Your task to perform on an android device: uninstall "Airtel Thanks" Image 0: 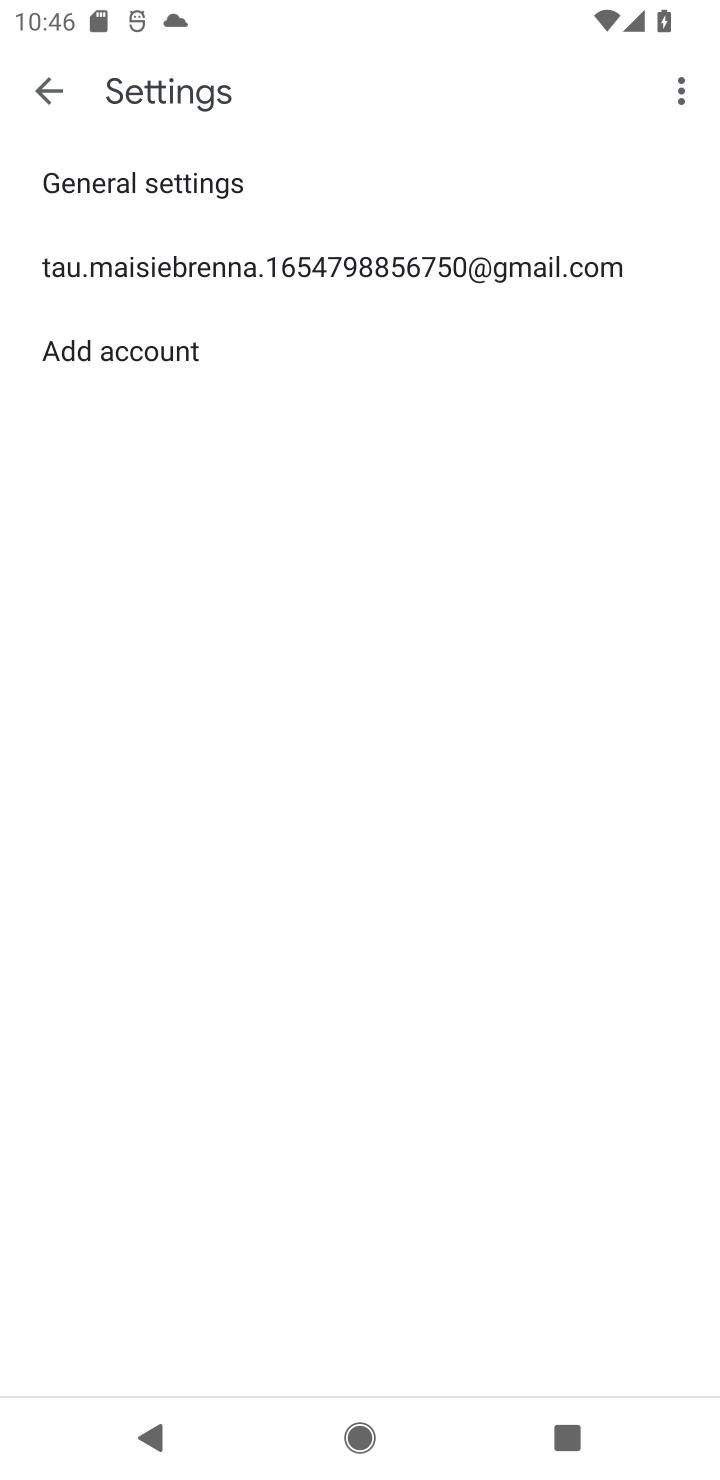
Step 0: press home button
Your task to perform on an android device: uninstall "Airtel Thanks" Image 1: 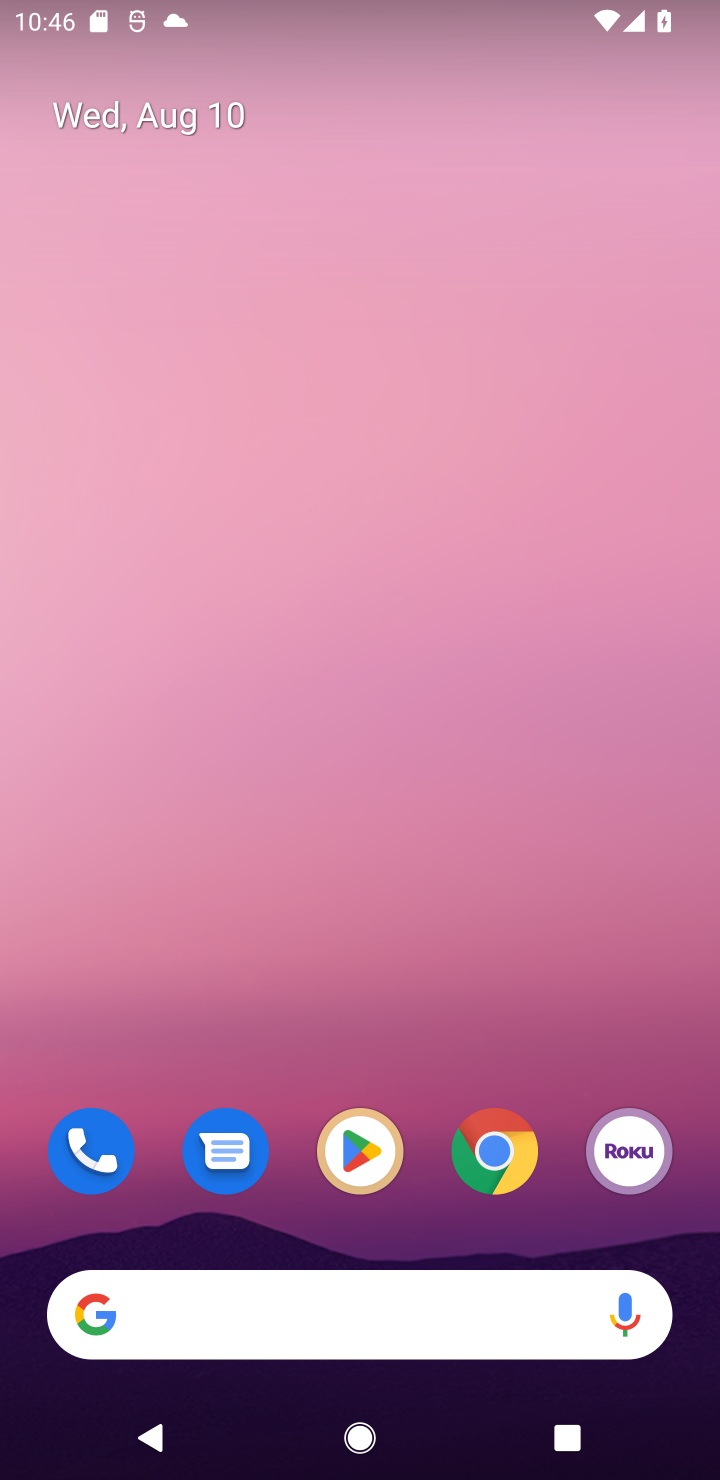
Step 1: drag from (407, 1081) to (449, 132)
Your task to perform on an android device: uninstall "Airtel Thanks" Image 2: 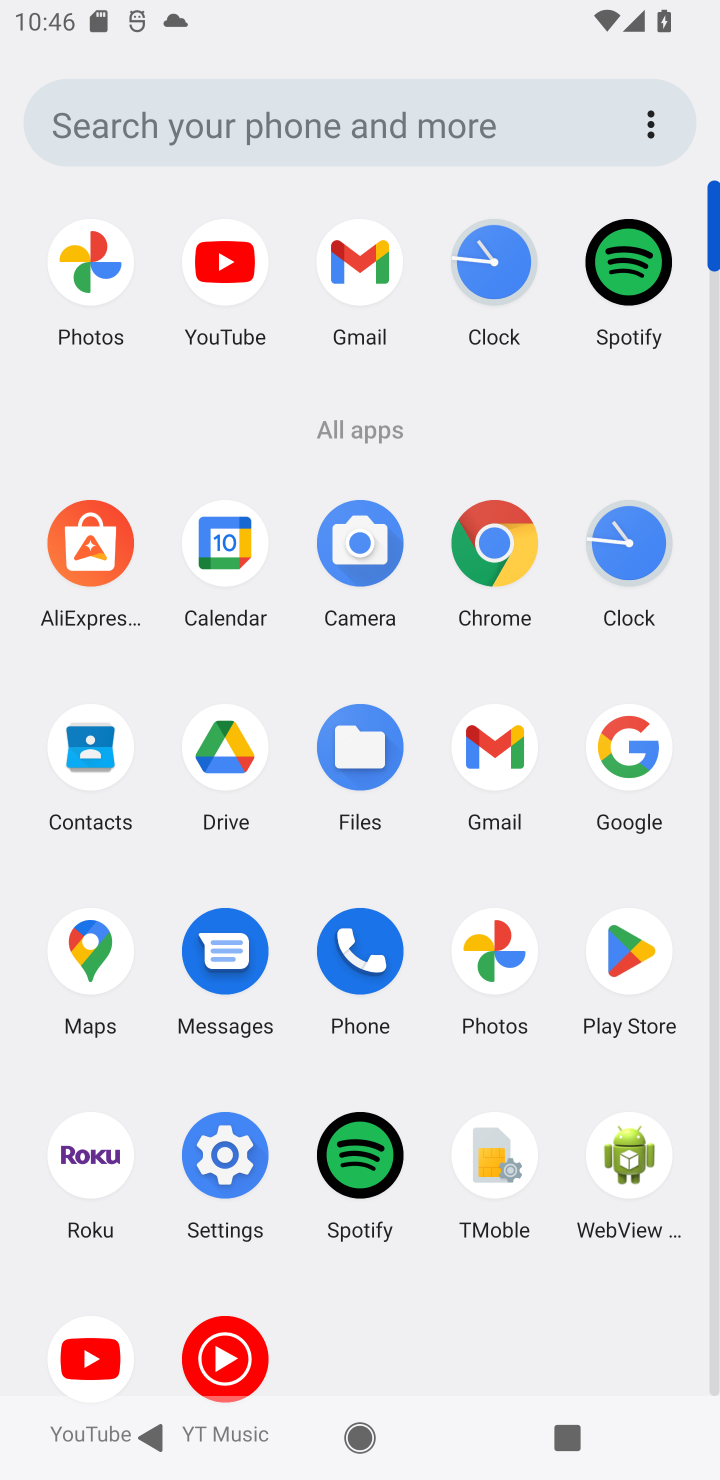
Step 2: click (617, 940)
Your task to perform on an android device: uninstall "Airtel Thanks" Image 3: 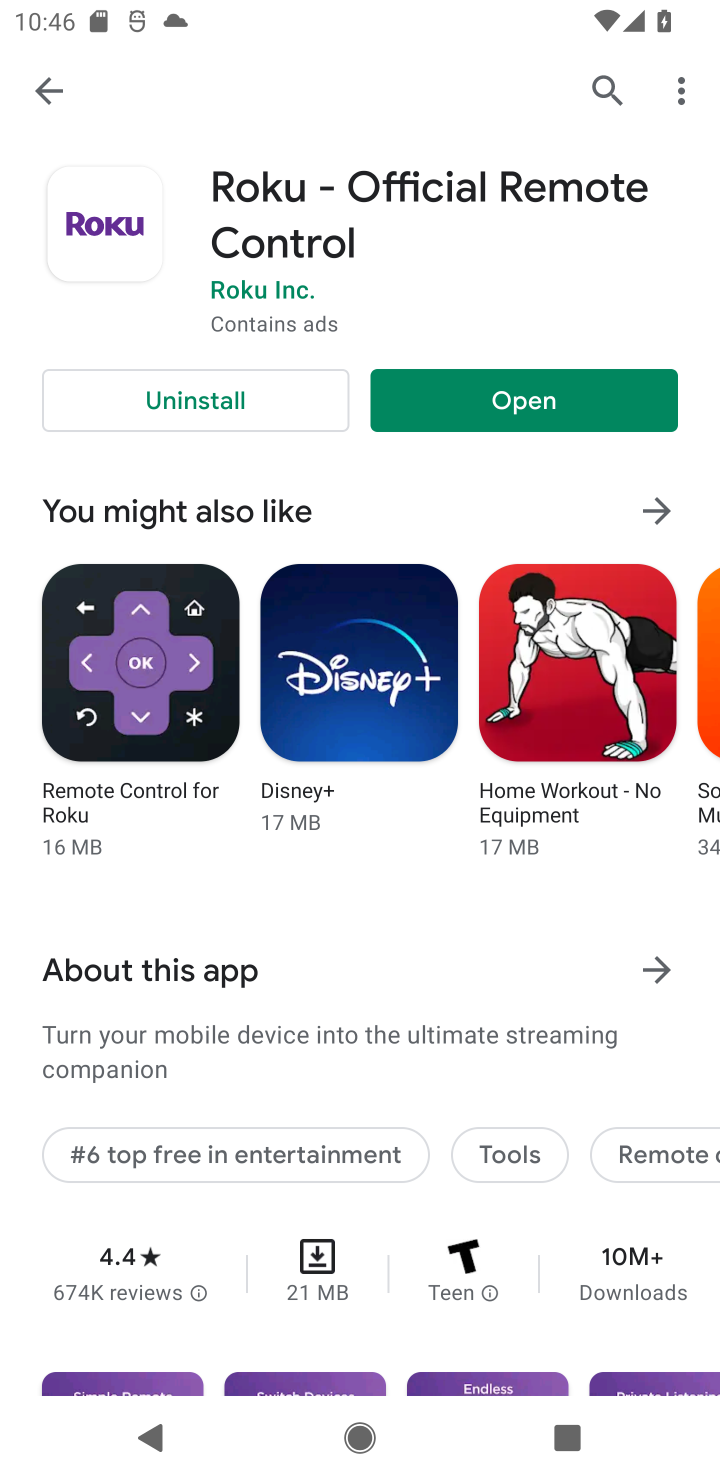
Step 3: click (597, 86)
Your task to perform on an android device: uninstall "Airtel Thanks" Image 4: 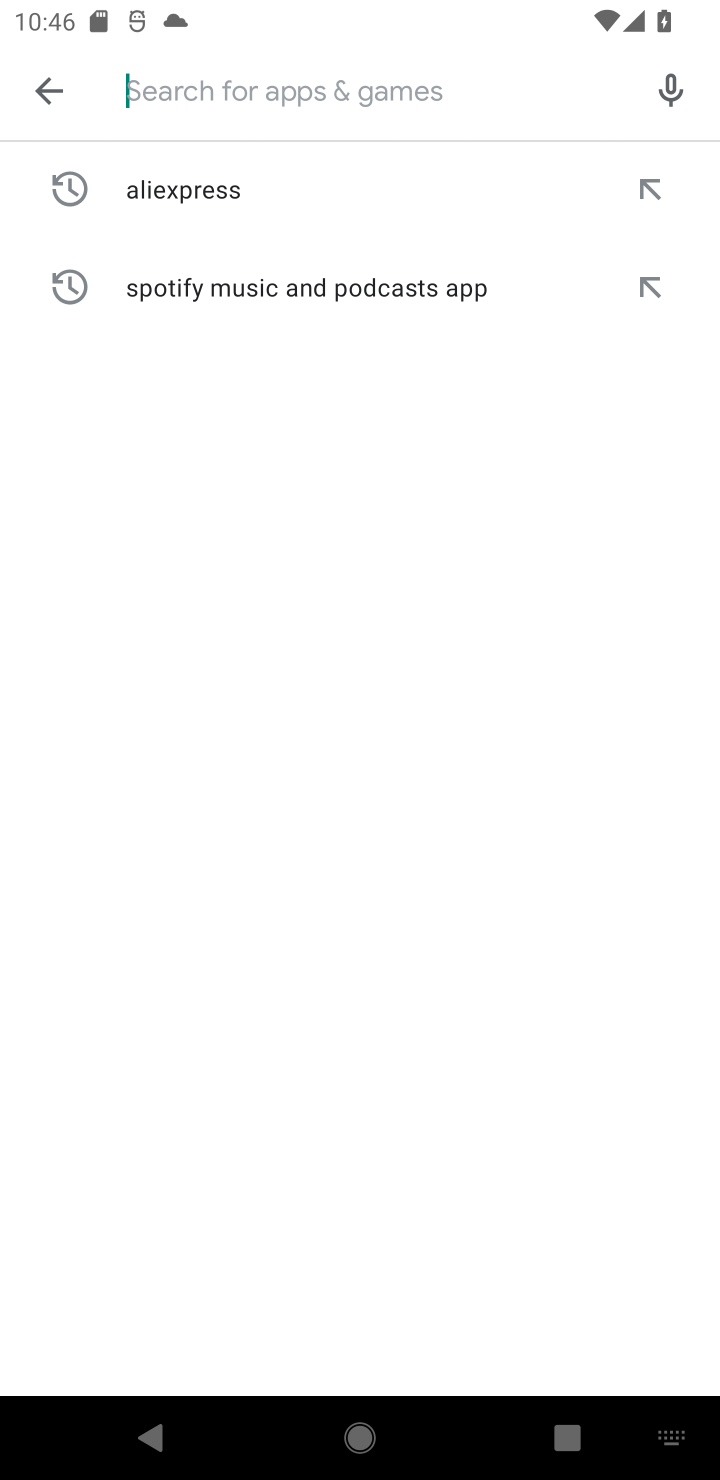
Step 4: type "Airtel Thanks"
Your task to perform on an android device: uninstall "Airtel Thanks" Image 5: 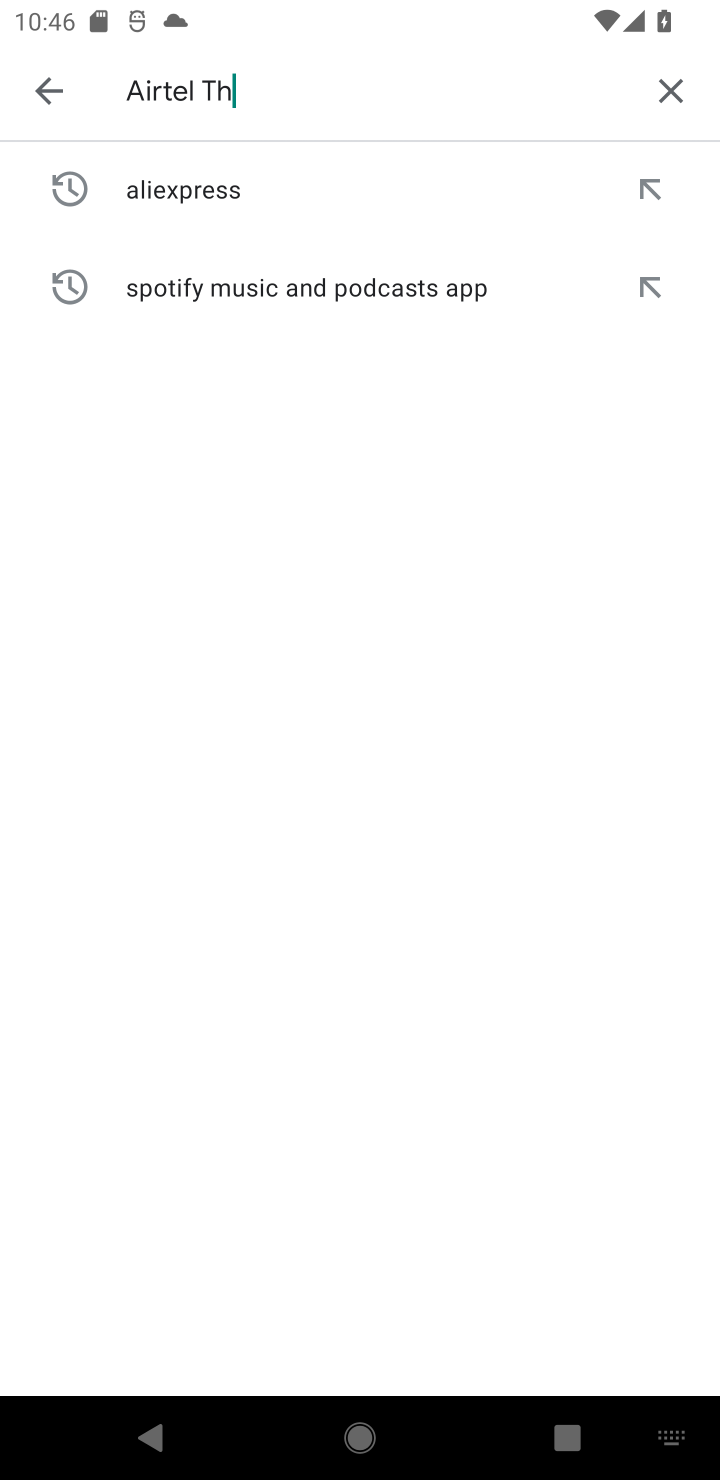
Step 5: type ""
Your task to perform on an android device: uninstall "Airtel Thanks" Image 6: 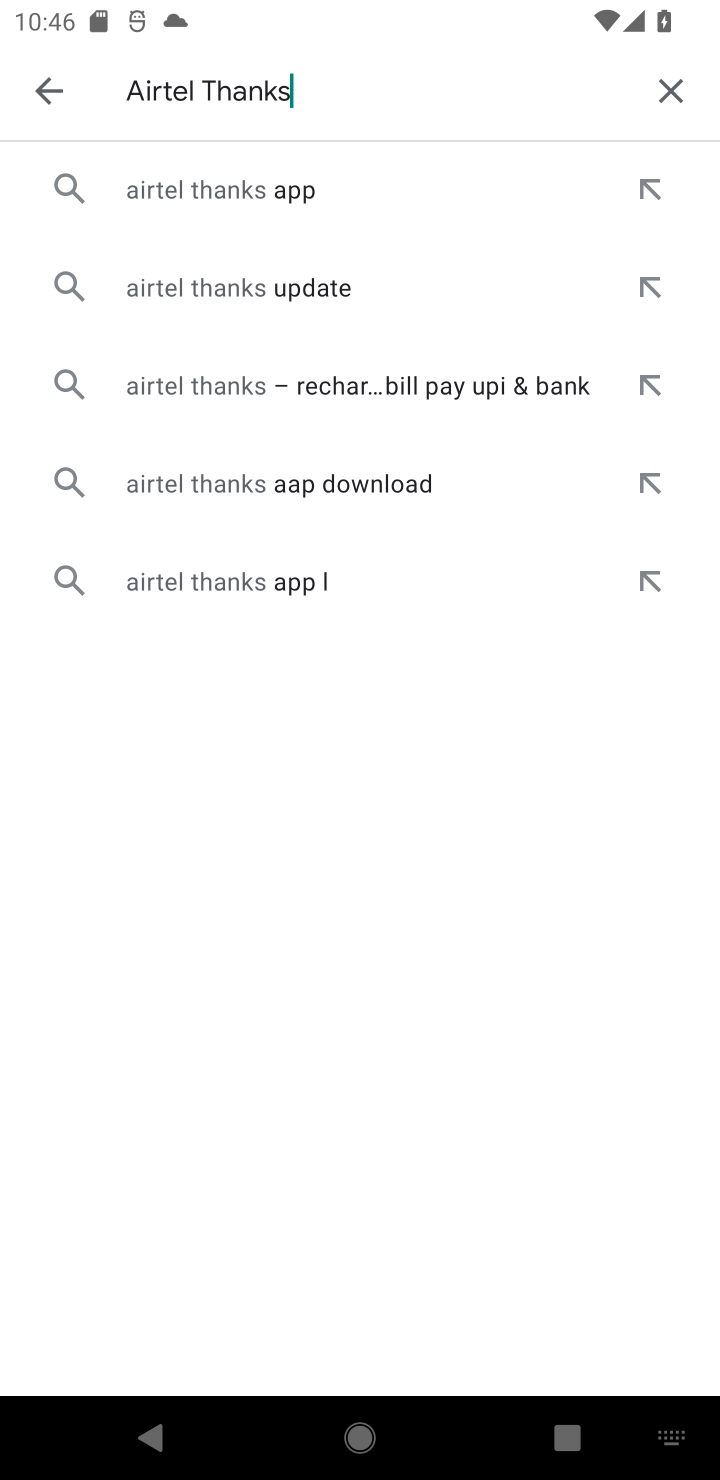
Step 6: click (323, 196)
Your task to perform on an android device: uninstall "Airtel Thanks" Image 7: 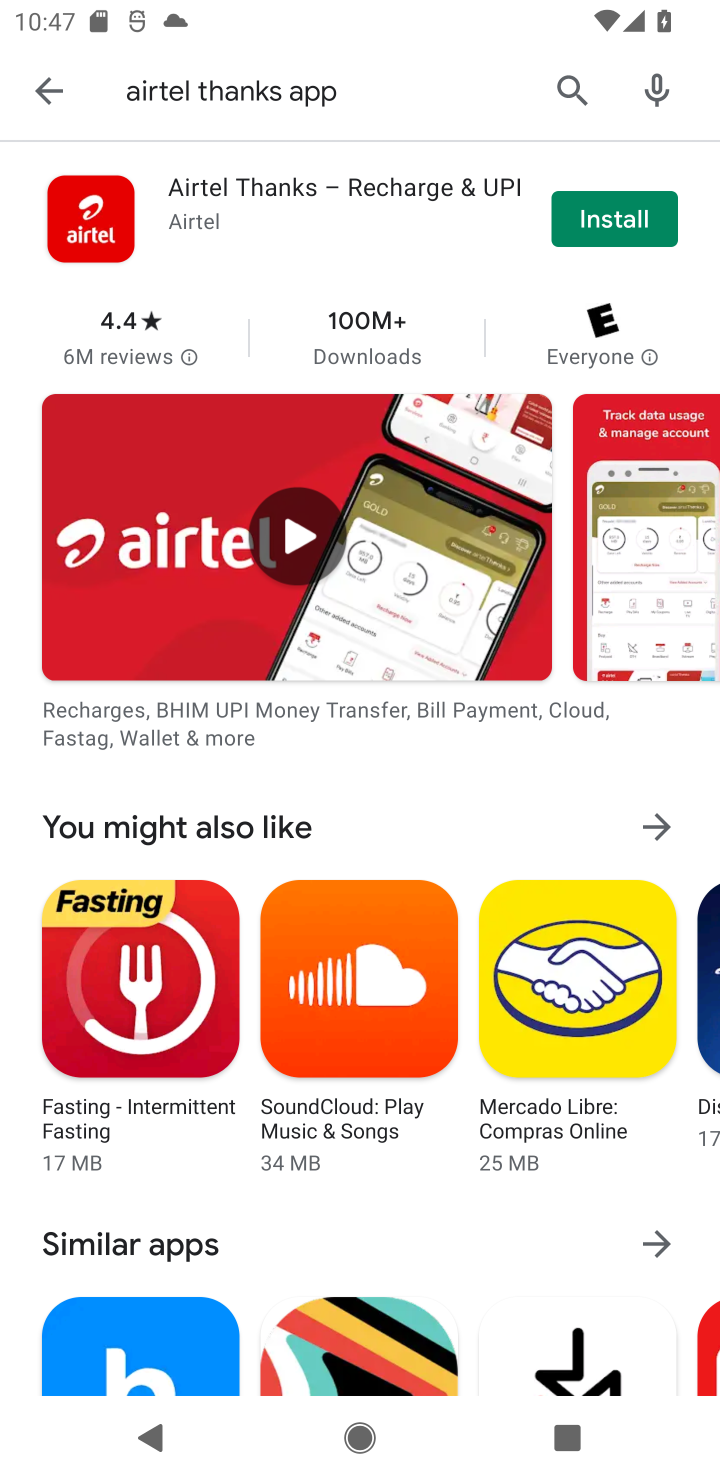
Step 7: task complete